Your task to perform on an android device: change the clock display to analog Image 0: 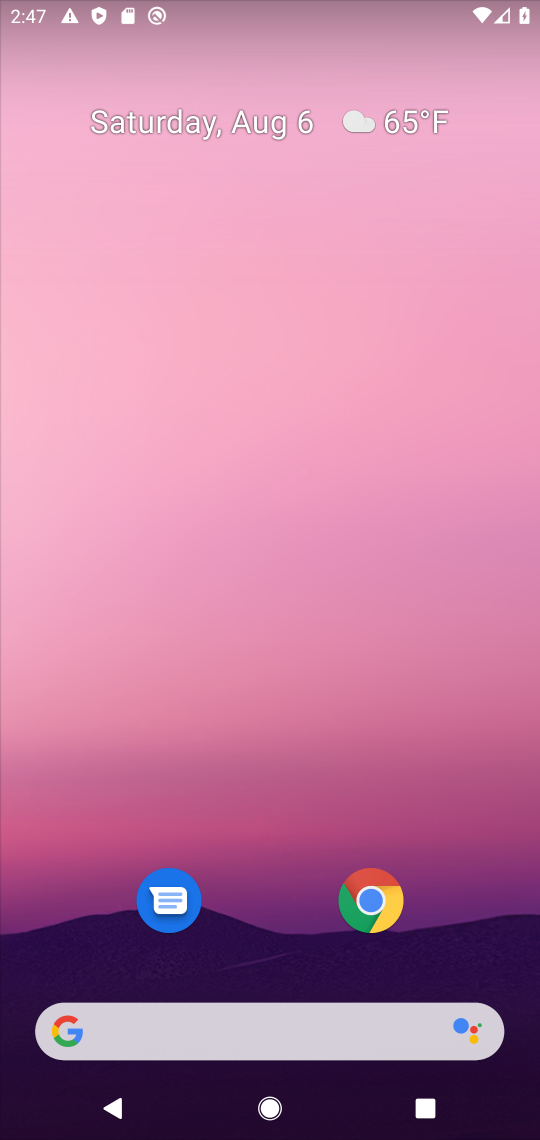
Step 0: drag from (292, 712) to (317, 81)
Your task to perform on an android device: change the clock display to analog Image 1: 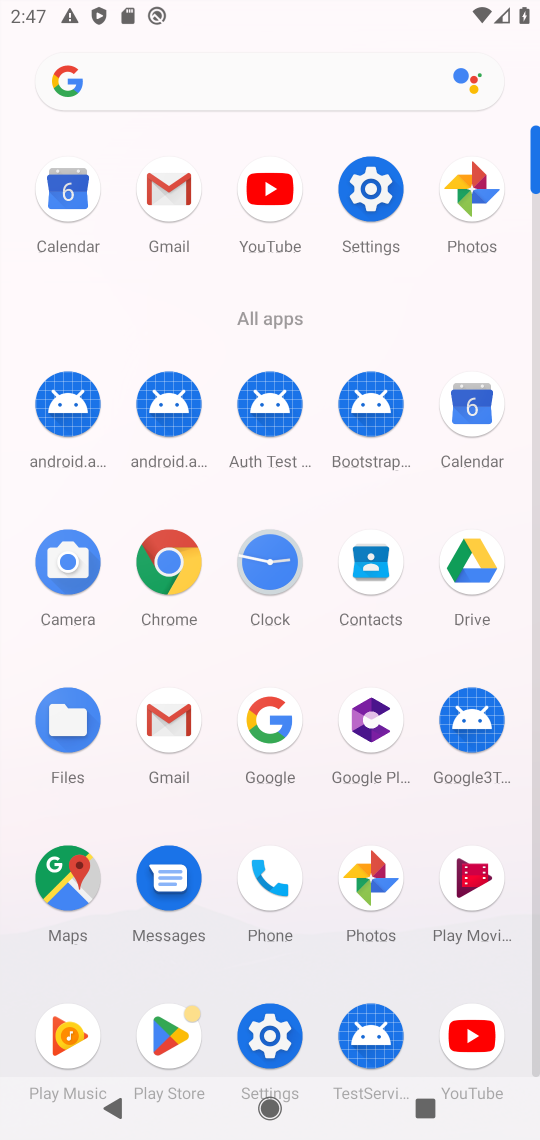
Step 1: click (264, 548)
Your task to perform on an android device: change the clock display to analog Image 2: 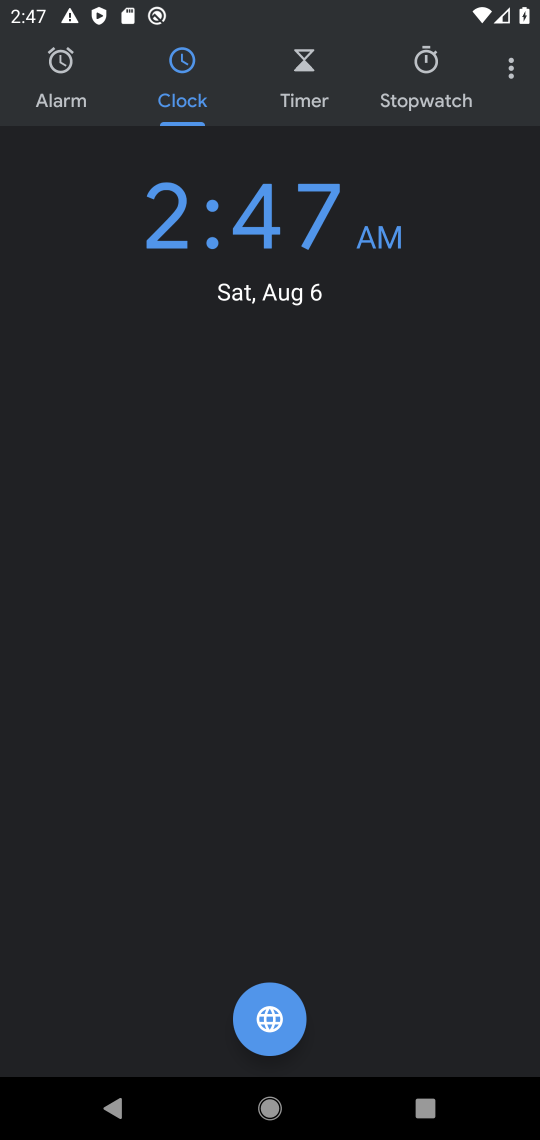
Step 2: click (507, 66)
Your task to perform on an android device: change the clock display to analog Image 3: 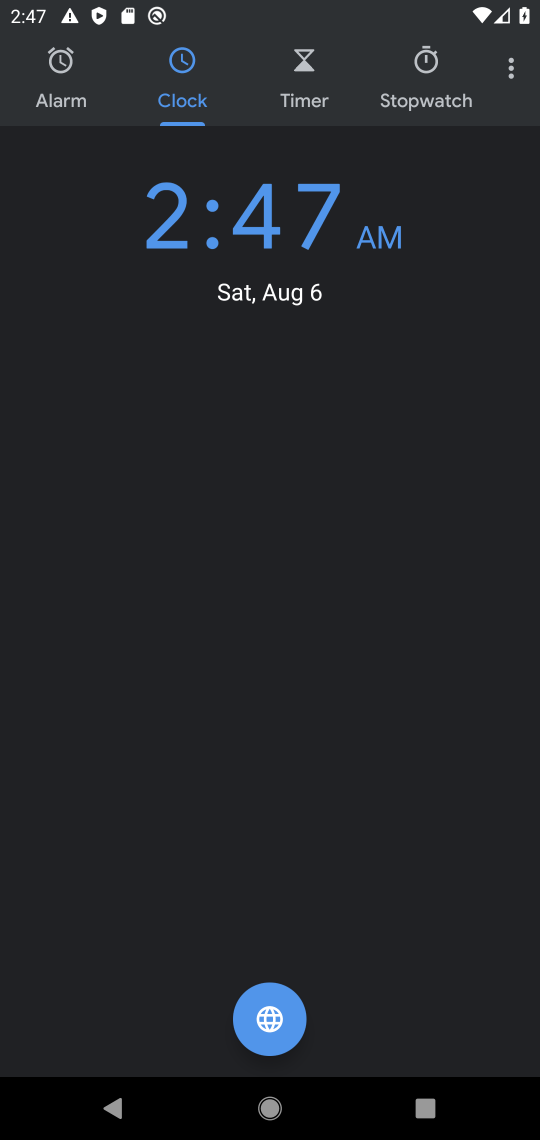
Step 3: click (498, 59)
Your task to perform on an android device: change the clock display to analog Image 4: 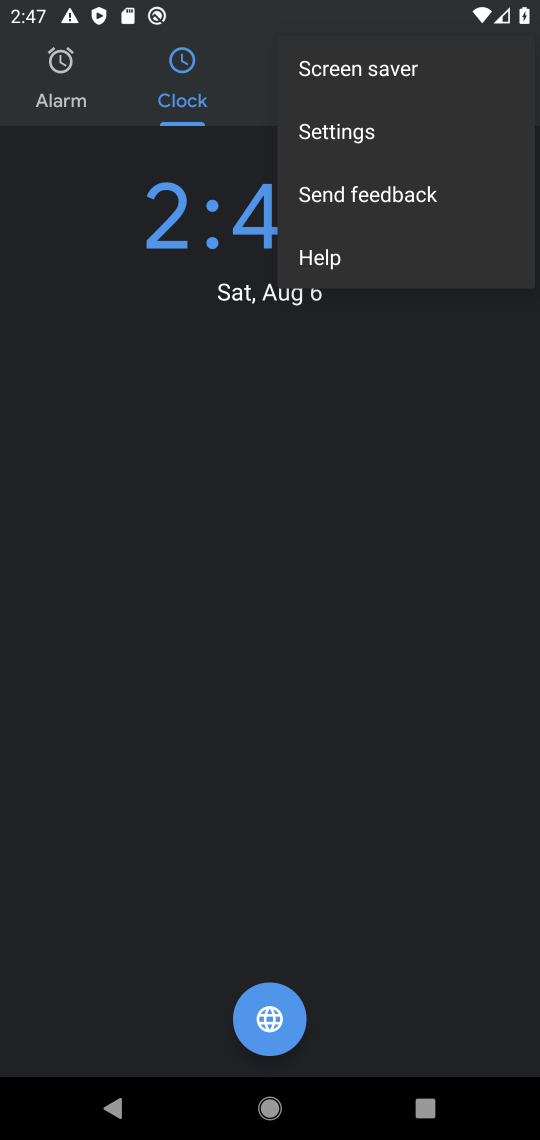
Step 4: click (380, 133)
Your task to perform on an android device: change the clock display to analog Image 5: 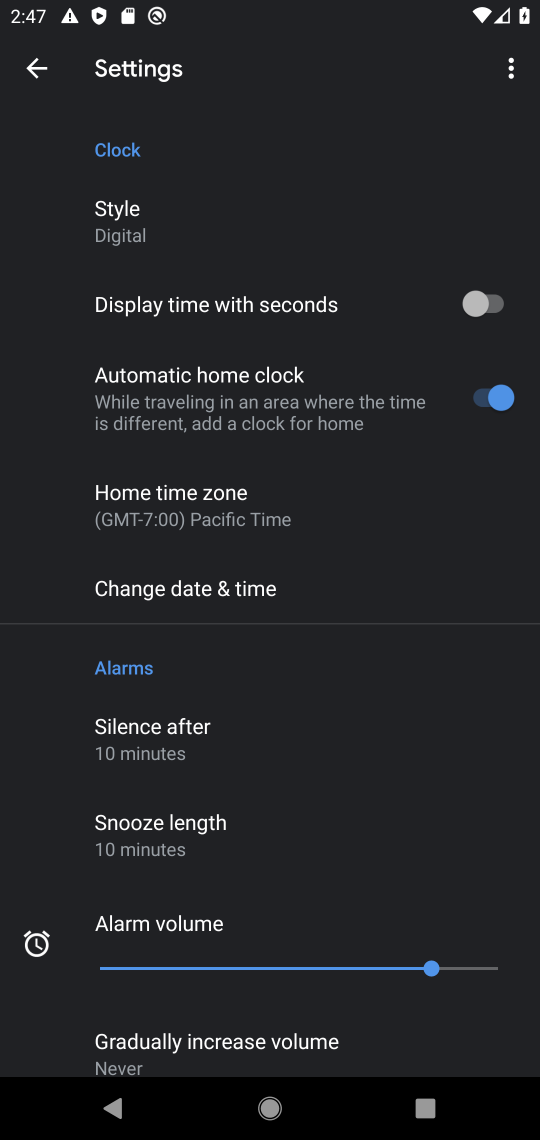
Step 5: click (198, 230)
Your task to perform on an android device: change the clock display to analog Image 6: 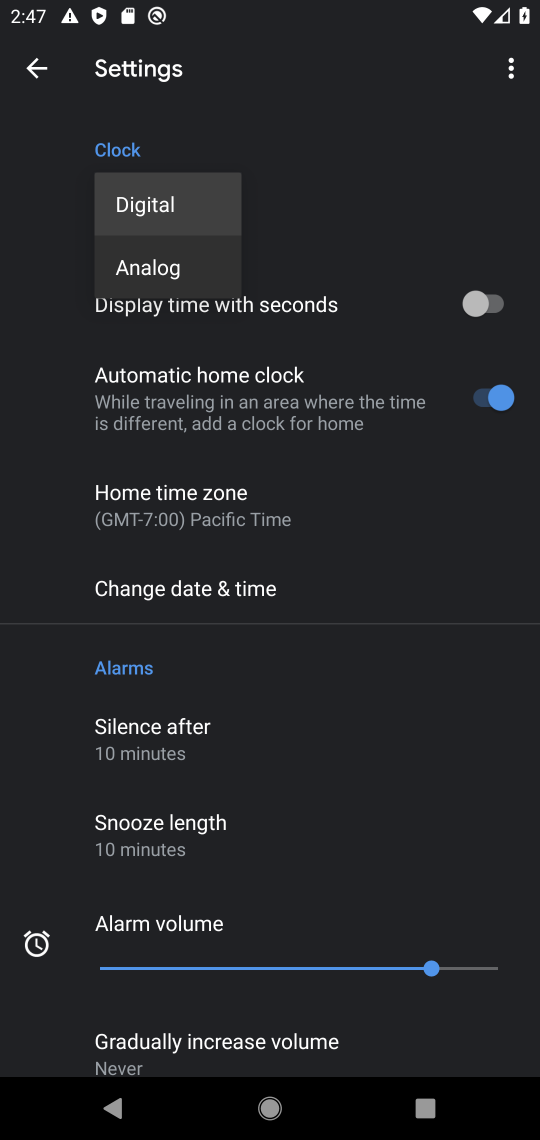
Step 6: click (163, 279)
Your task to perform on an android device: change the clock display to analog Image 7: 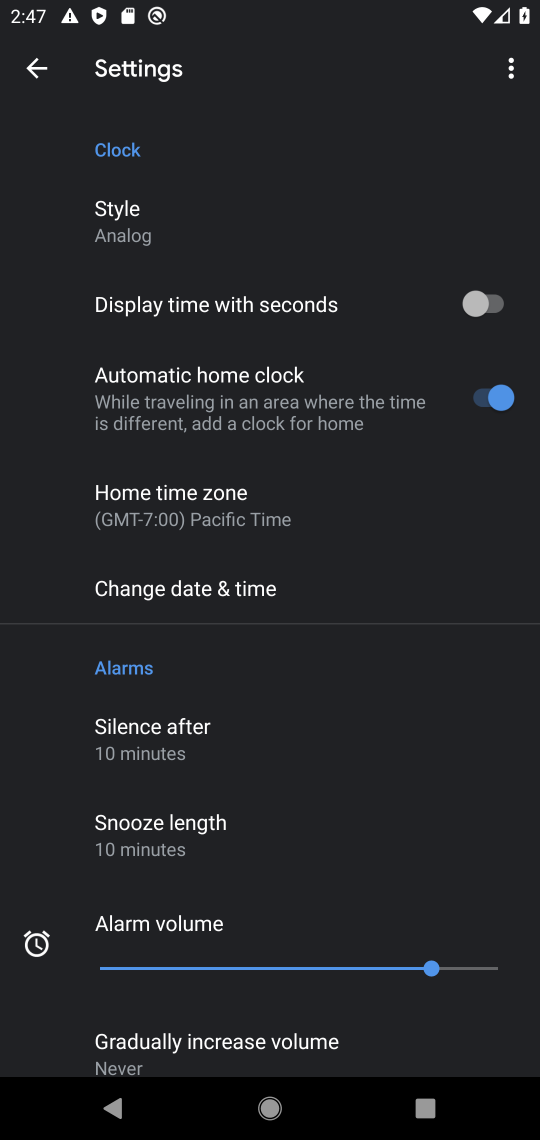
Step 7: task complete